Your task to perform on an android device: check battery use Image 0: 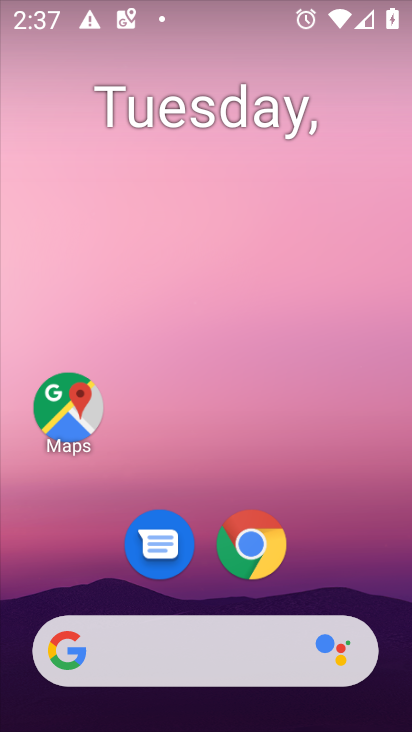
Step 0: drag from (297, 99) to (221, 6)
Your task to perform on an android device: check battery use Image 1: 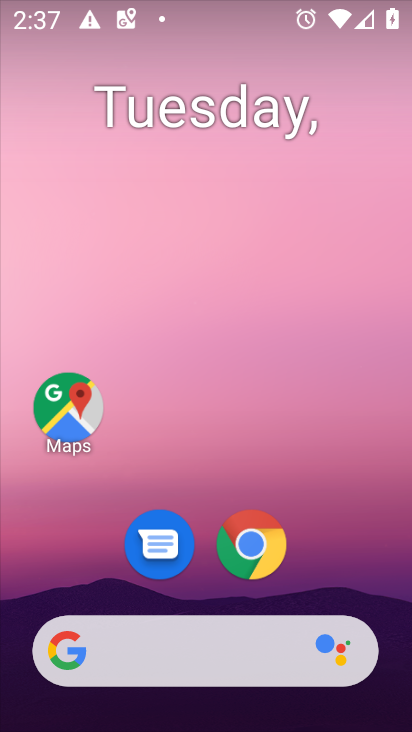
Step 1: drag from (372, 531) to (191, 16)
Your task to perform on an android device: check battery use Image 2: 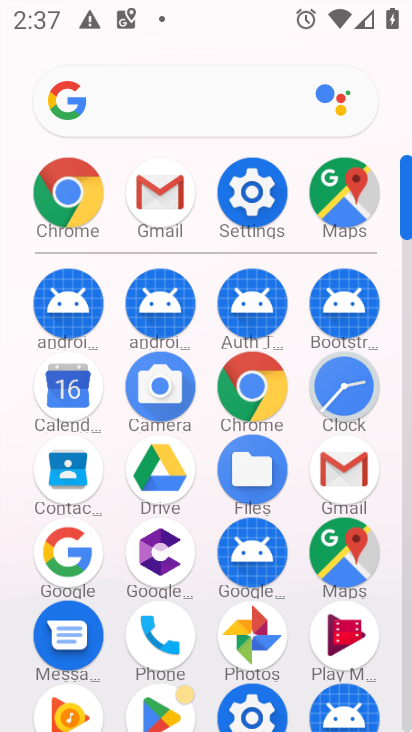
Step 2: click (255, 199)
Your task to perform on an android device: check battery use Image 3: 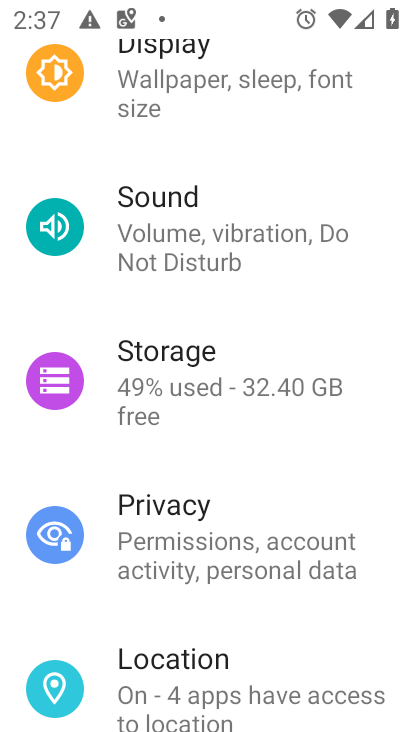
Step 3: drag from (279, 204) to (244, 730)
Your task to perform on an android device: check battery use Image 4: 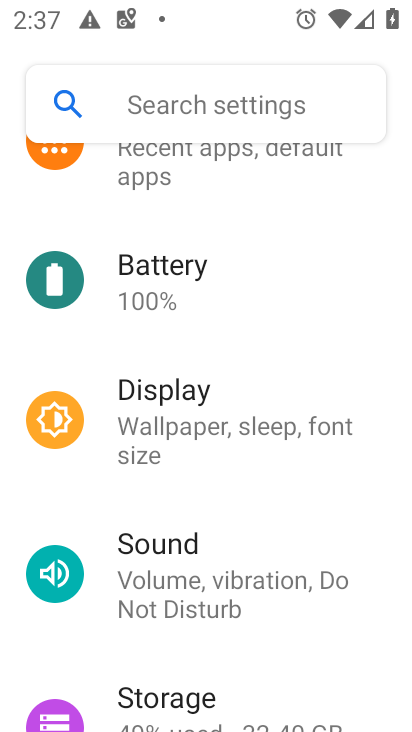
Step 4: drag from (237, 224) to (232, 724)
Your task to perform on an android device: check battery use Image 5: 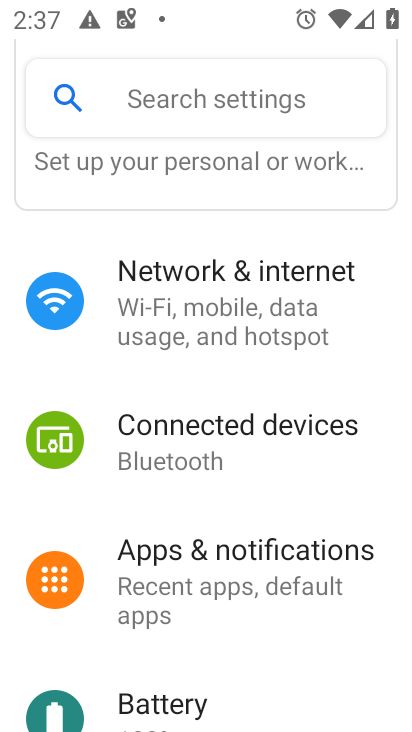
Step 5: click (164, 693)
Your task to perform on an android device: check battery use Image 6: 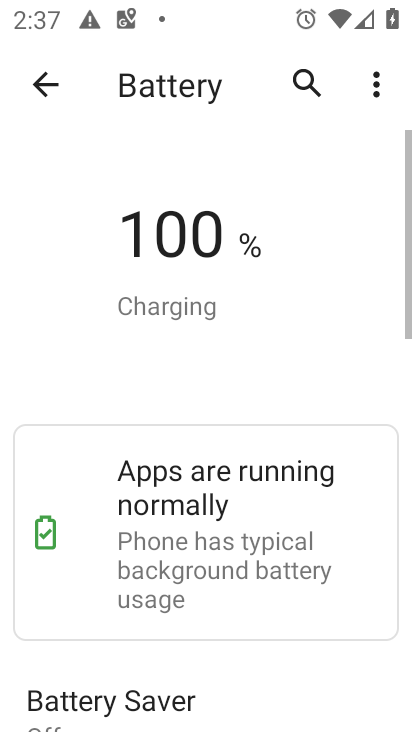
Step 6: drag from (262, 544) to (236, 97)
Your task to perform on an android device: check battery use Image 7: 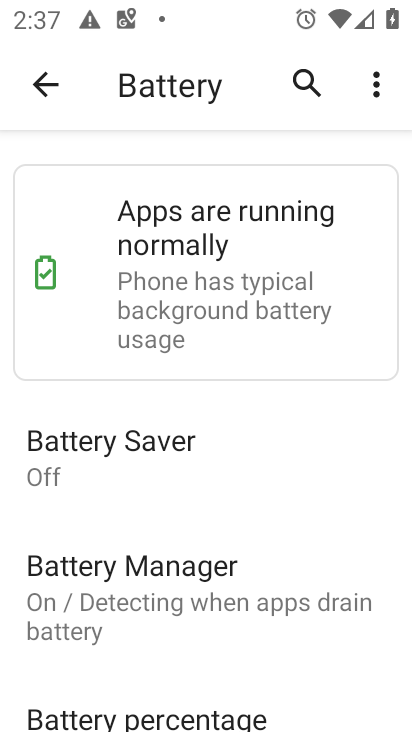
Step 7: click (383, 87)
Your task to perform on an android device: check battery use Image 8: 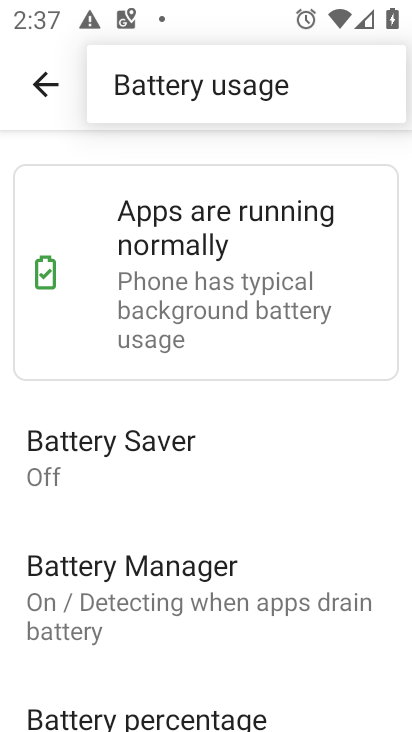
Step 8: click (262, 87)
Your task to perform on an android device: check battery use Image 9: 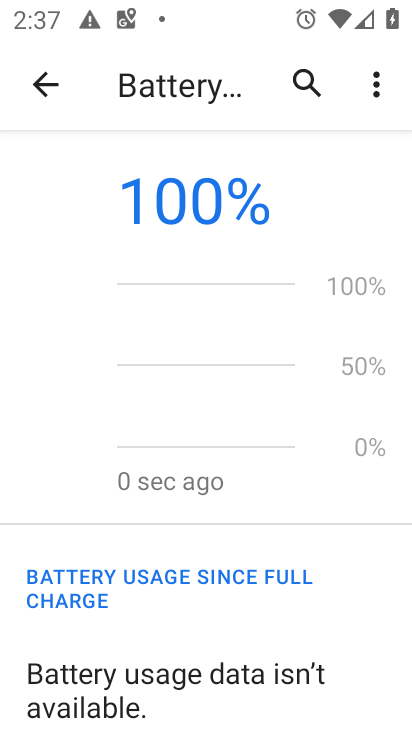
Step 9: task complete